Your task to perform on an android device: Open the Play Movies app and select the watchlist tab. Image 0: 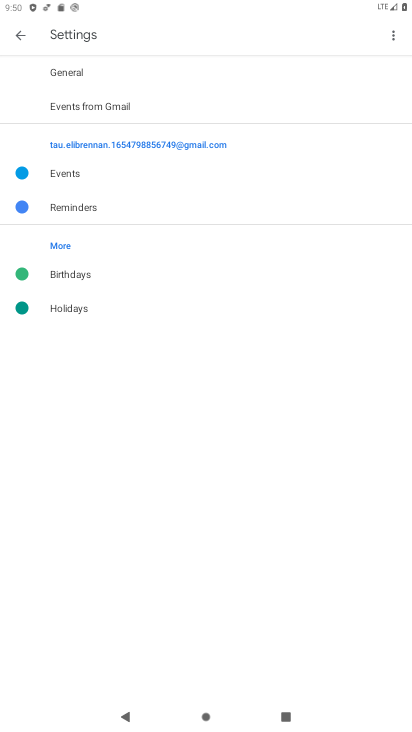
Step 0: press home button
Your task to perform on an android device: Open the Play Movies app and select the watchlist tab. Image 1: 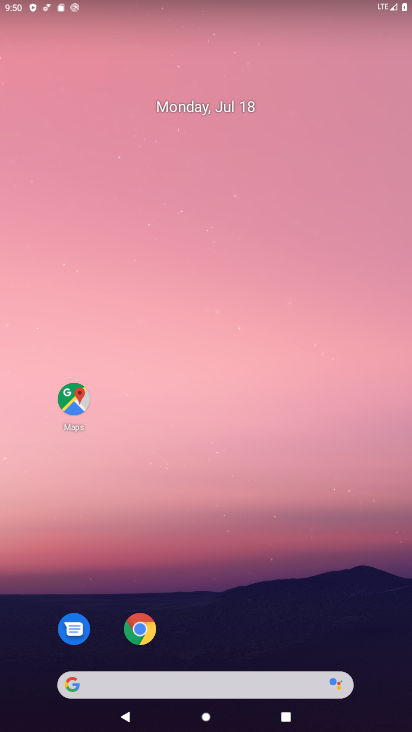
Step 1: drag from (214, 679) to (143, 146)
Your task to perform on an android device: Open the Play Movies app and select the watchlist tab. Image 2: 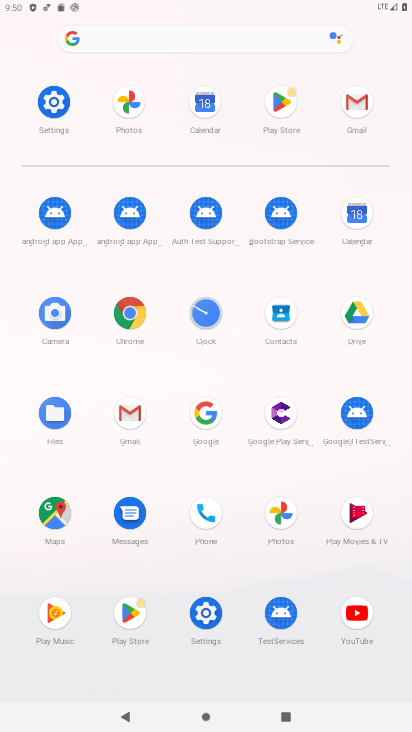
Step 2: click (350, 504)
Your task to perform on an android device: Open the Play Movies app and select the watchlist tab. Image 3: 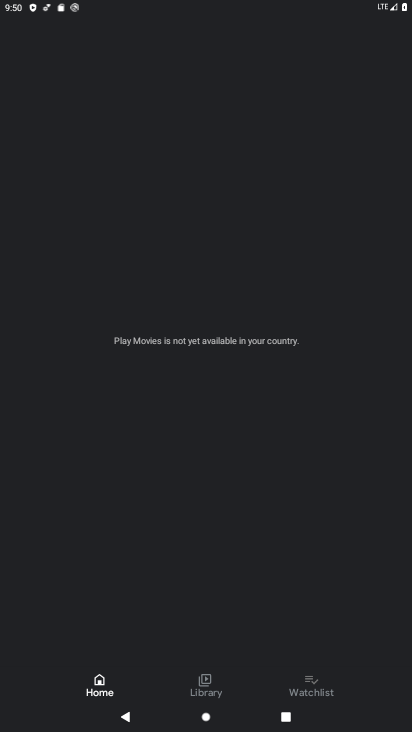
Step 3: click (315, 679)
Your task to perform on an android device: Open the Play Movies app and select the watchlist tab. Image 4: 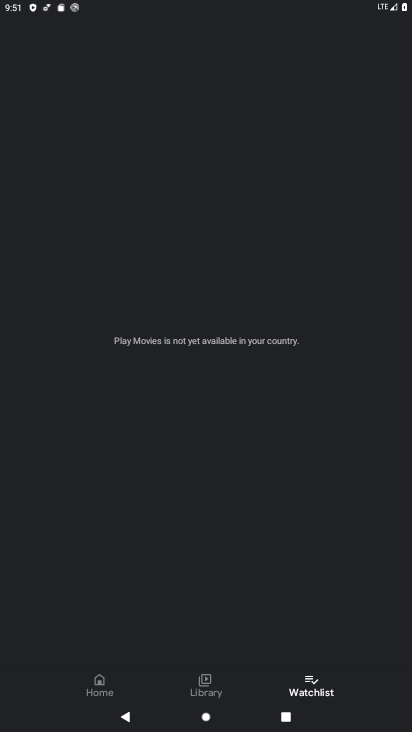
Step 4: task complete